Your task to perform on an android device: Open battery settings Image 0: 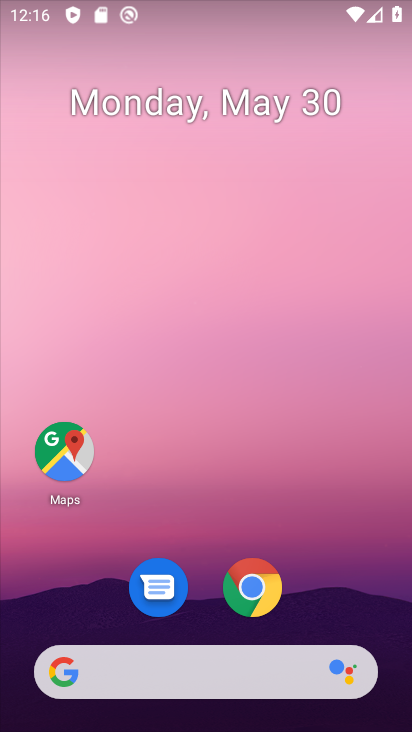
Step 0: drag from (131, 729) to (145, 42)
Your task to perform on an android device: Open battery settings Image 1: 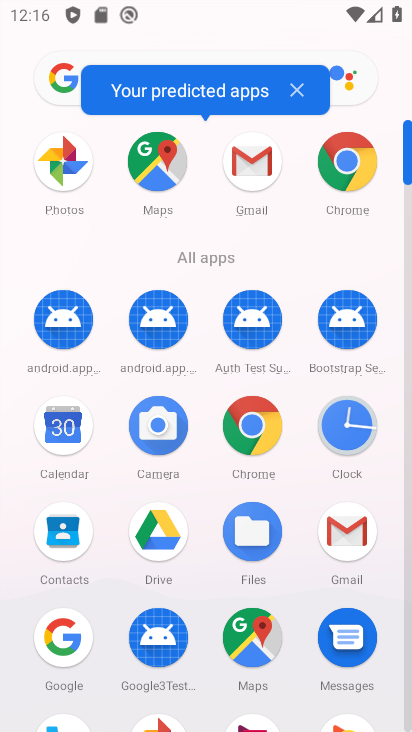
Step 1: drag from (202, 595) to (177, 229)
Your task to perform on an android device: Open battery settings Image 2: 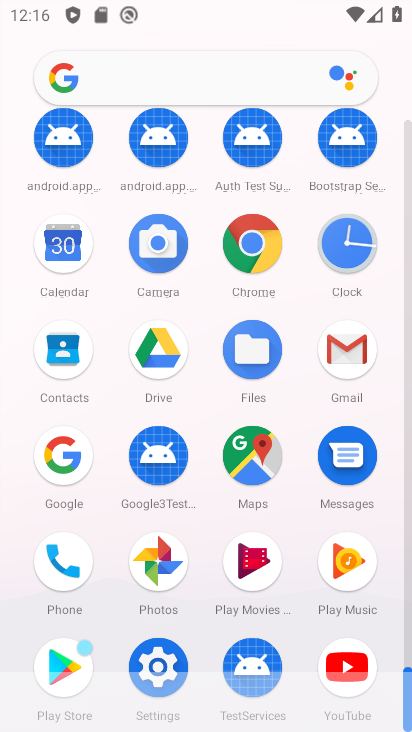
Step 2: click (150, 665)
Your task to perform on an android device: Open battery settings Image 3: 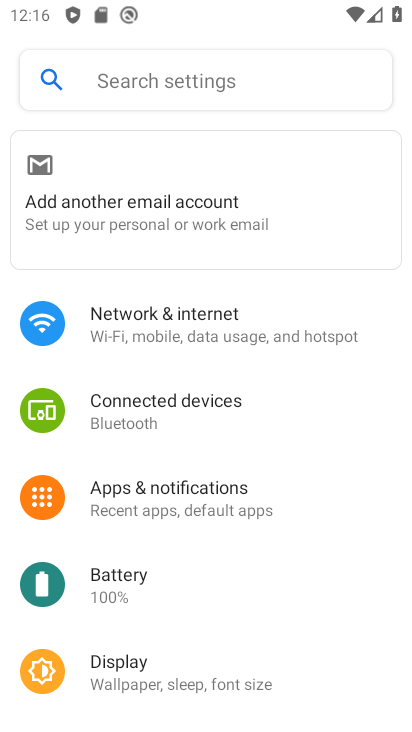
Step 3: click (208, 599)
Your task to perform on an android device: Open battery settings Image 4: 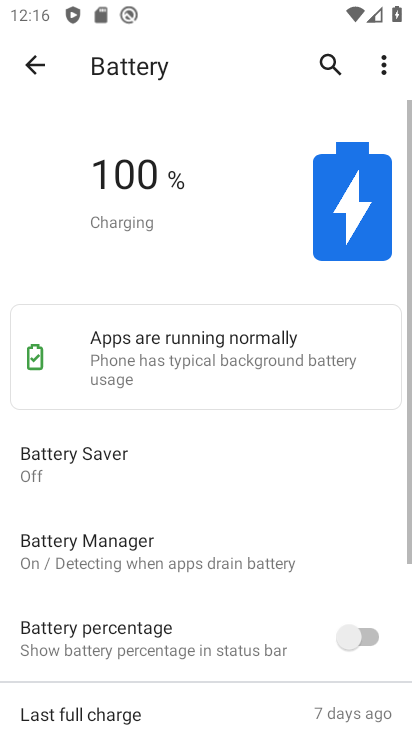
Step 4: task complete